Your task to perform on an android device: toggle wifi Image 0: 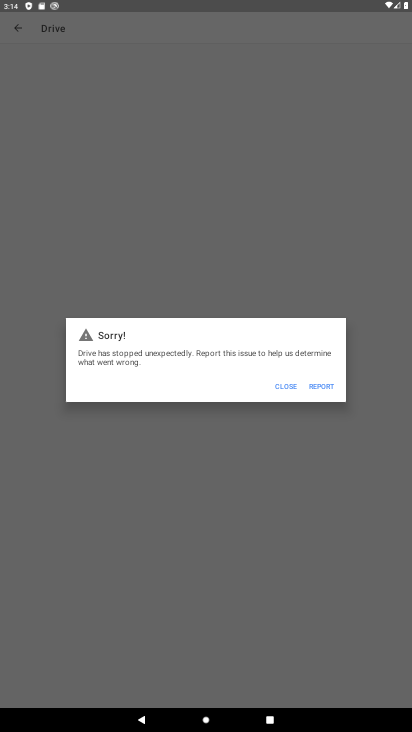
Step 0: press home button
Your task to perform on an android device: toggle wifi Image 1: 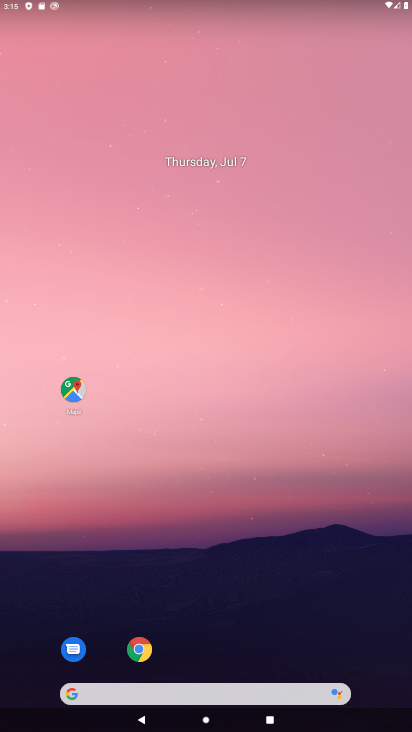
Step 1: drag from (331, 642) to (329, 300)
Your task to perform on an android device: toggle wifi Image 2: 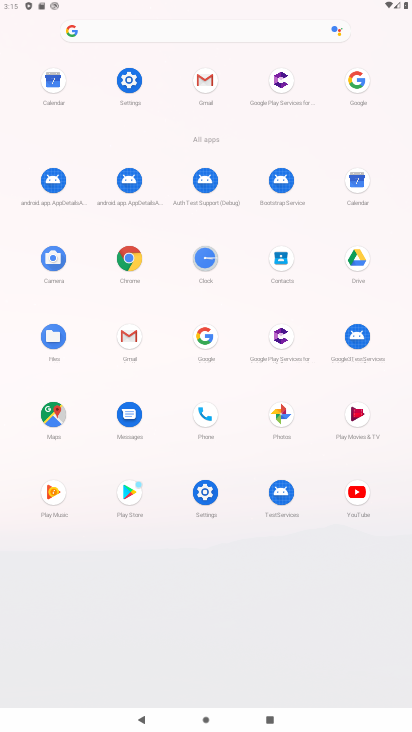
Step 2: click (206, 494)
Your task to perform on an android device: toggle wifi Image 3: 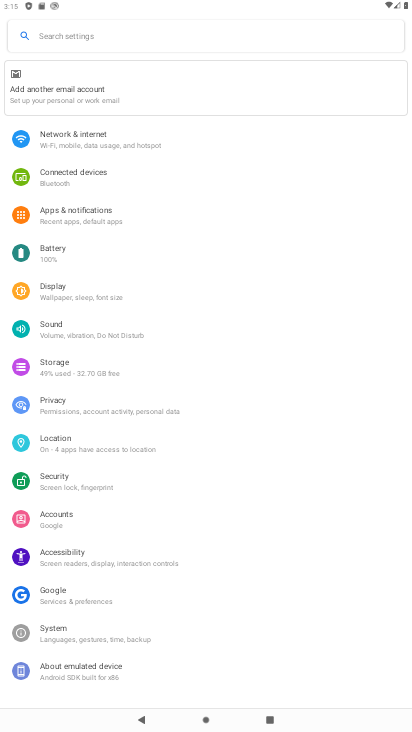
Step 3: click (107, 144)
Your task to perform on an android device: toggle wifi Image 4: 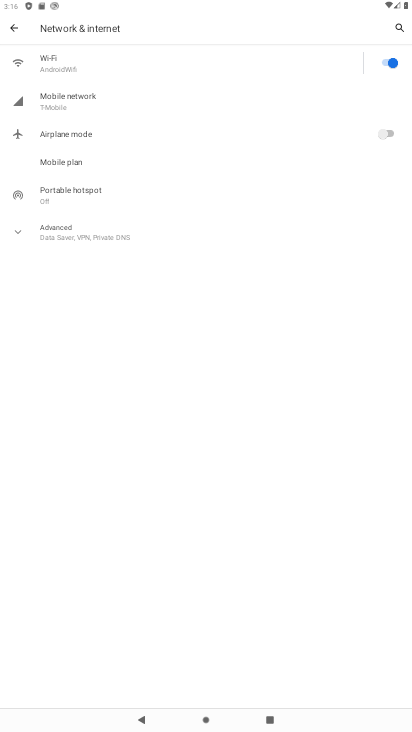
Step 4: click (386, 65)
Your task to perform on an android device: toggle wifi Image 5: 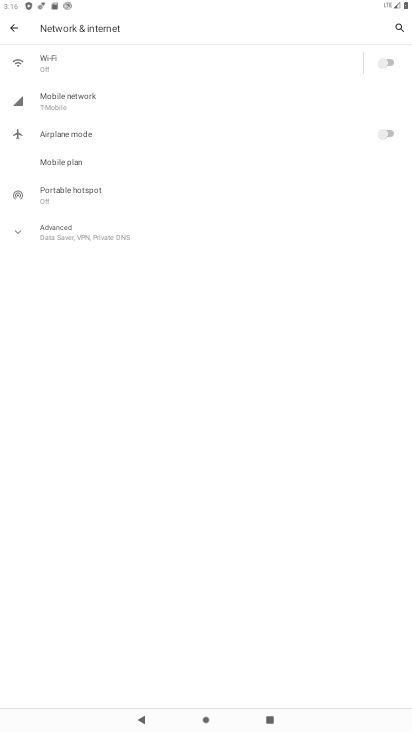
Step 5: task complete